Your task to perform on an android device: delete browsing data in the chrome app Image 0: 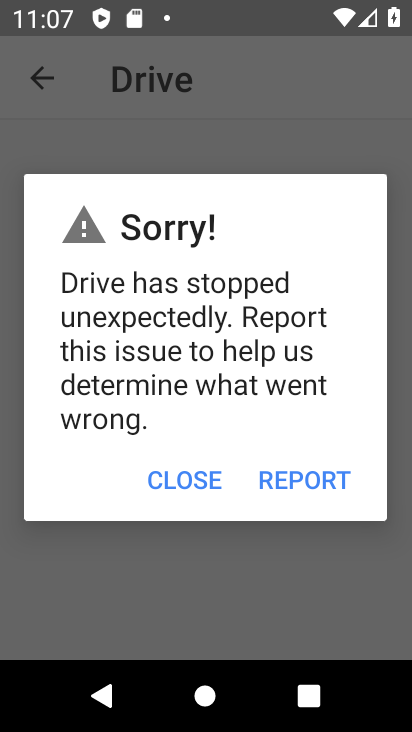
Step 0: press home button
Your task to perform on an android device: delete browsing data in the chrome app Image 1: 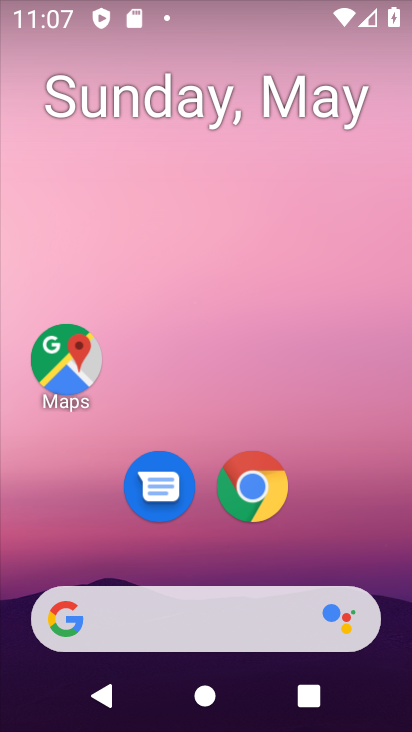
Step 1: click (268, 504)
Your task to perform on an android device: delete browsing data in the chrome app Image 2: 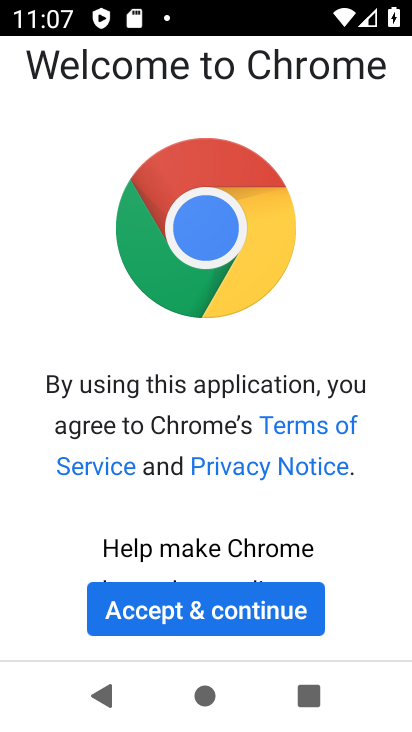
Step 2: click (237, 615)
Your task to perform on an android device: delete browsing data in the chrome app Image 3: 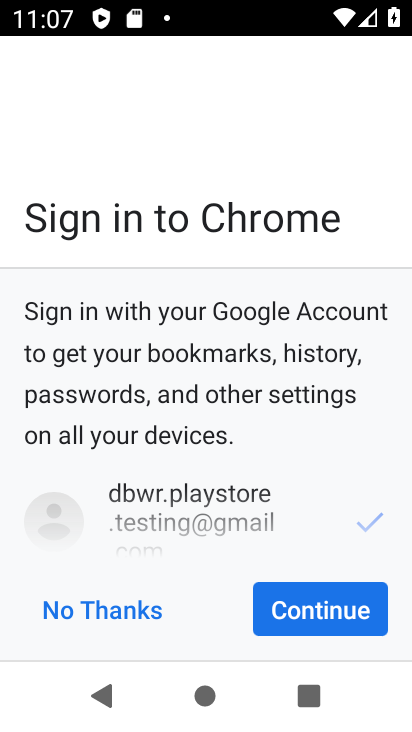
Step 3: click (314, 622)
Your task to perform on an android device: delete browsing data in the chrome app Image 4: 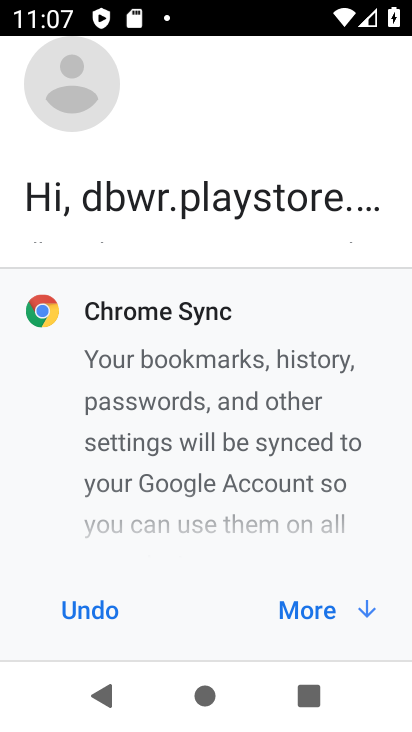
Step 4: click (317, 617)
Your task to perform on an android device: delete browsing data in the chrome app Image 5: 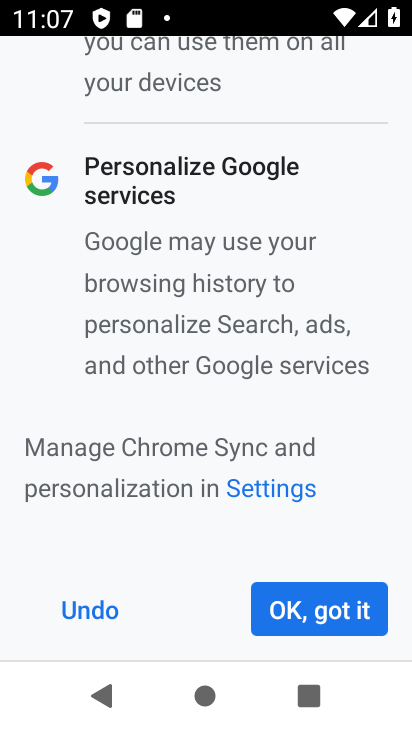
Step 5: click (317, 617)
Your task to perform on an android device: delete browsing data in the chrome app Image 6: 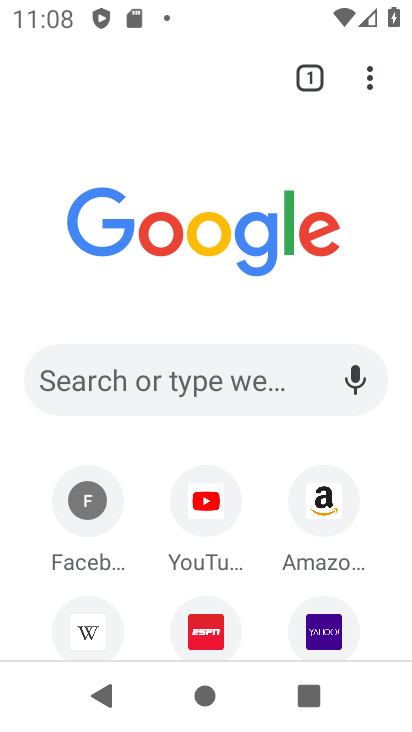
Step 6: click (367, 74)
Your task to perform on an android device: delete browsing data in the chrome app Image 7: 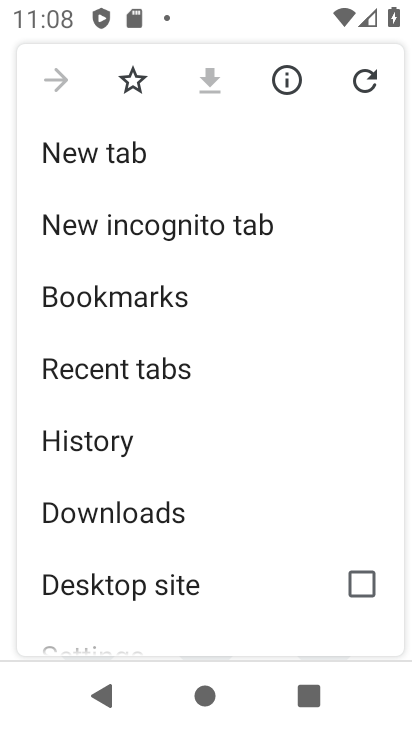
Step 7: drag from (252, 545) to (278, 168)
Your task to perform on an android device: delete browsing data in the chrome app Image 8: 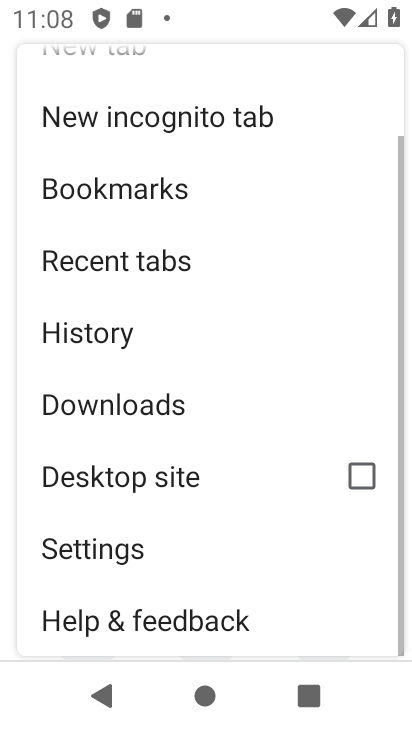
Step 8: click (226, 544)
Your task to perform on an android device: delete browsing data in the chrome app Image 9: 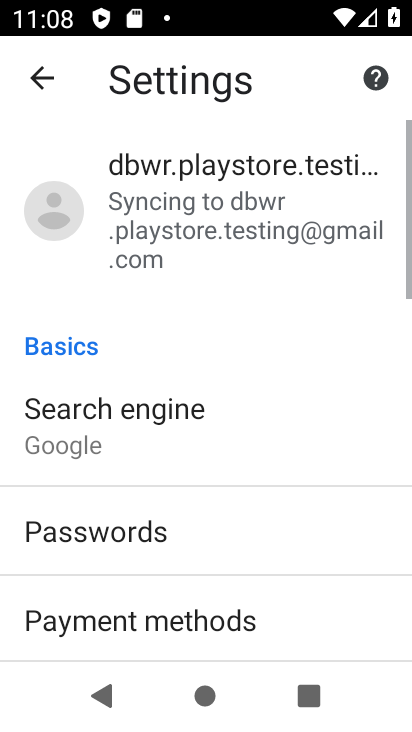
Step 9: drag from (226, 544) to (275, 205)
Your task to perform on an android device: delete browsing data in the chrome app Image 10: 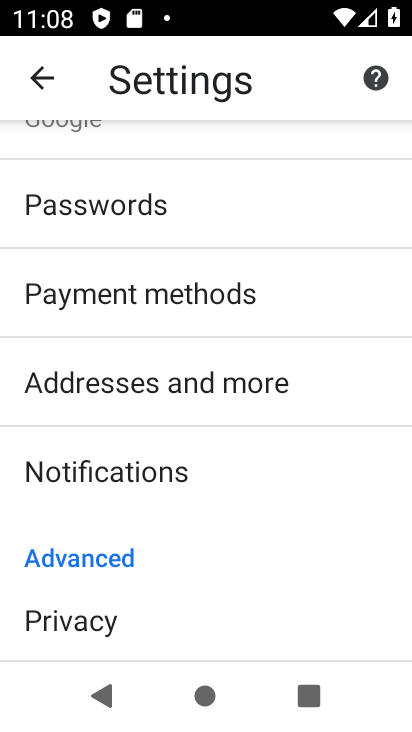
Step 10: drag from (247, 549) to (298, 212)
Your task to perform on an android device: delete browsing data in the chrome app Image 11: 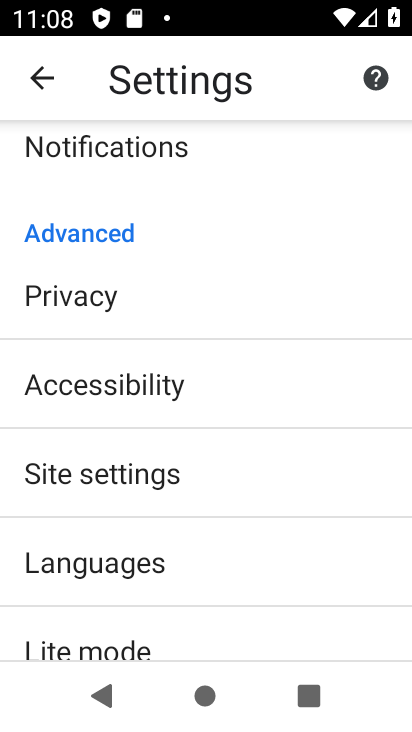
Step 11: drag from (290, 586) to (310, 254)
Your task to perform on an android device: delete browsing data in the chrome app Image 12: 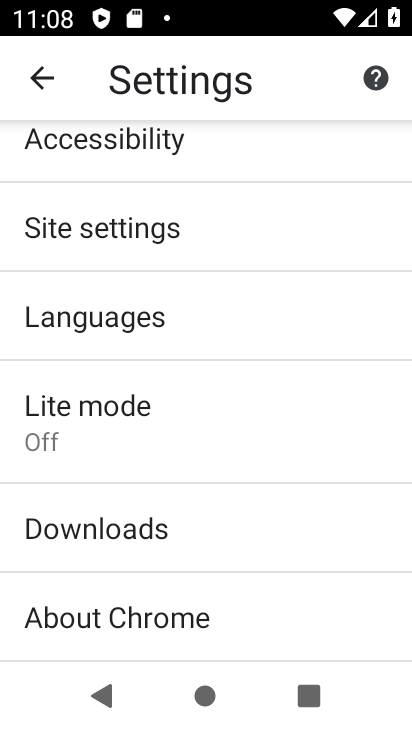
Step 12: drag from (289, 183) to (304, 534)
Your task to perform on an android device: delete browsing data in the chrome app Image 13: 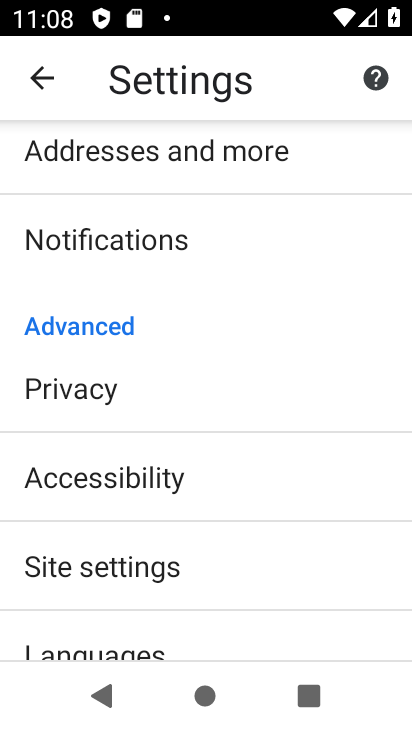
Step 13: click (155, 369)
Your task to perform on an android device: delete browsing data in the chrome app Image 14: 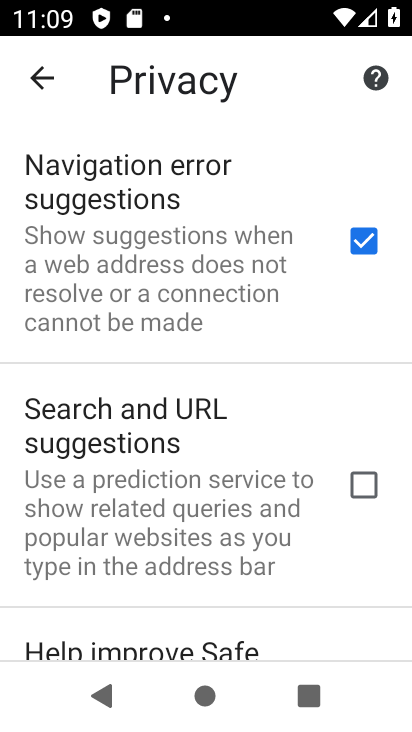
Step 14: drag from (182, 586) to (130, 217)
Your task to perform on an android device: delete browsing data in the chrome app Image 15: 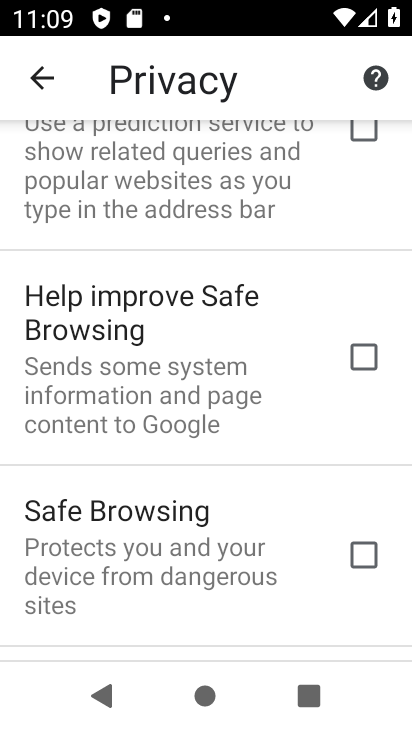
Step 15: drag from (222, 565) to (212, 187)
Your task to perform on an android device: delete browsing data in the chrome app Image 16: 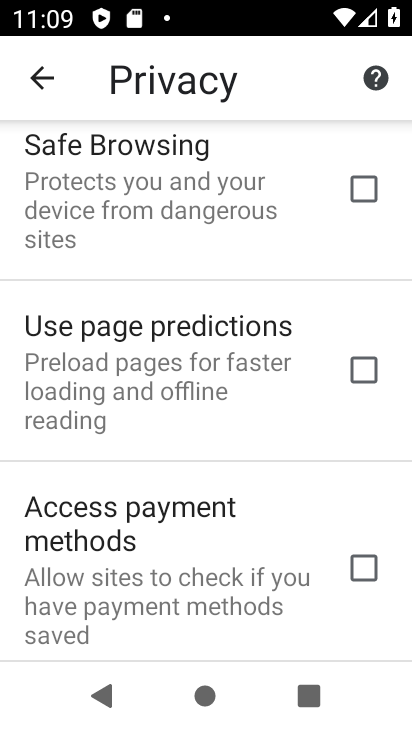
Step 16: drag from (234, 554) to (235, 154)
Your task to perform on an android device: delete browsing data in the chrome app Image 17: 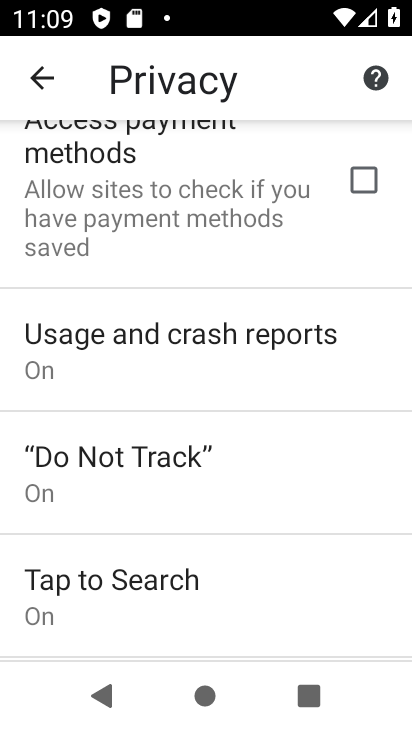
Step 17: drag from (227, 529) to (218, 190)
Your task to perform on an android device: delete browsing data in the chrome app Image 18: 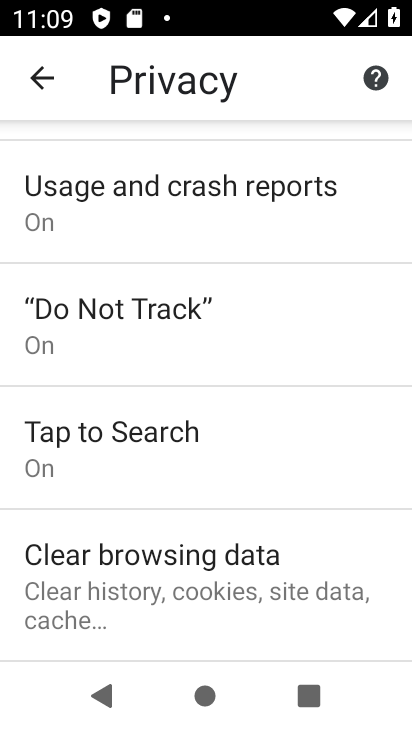
Step 18: click (253, 556)
Your task to perform on an android device: delete browsing data in the chrome app Image 19: 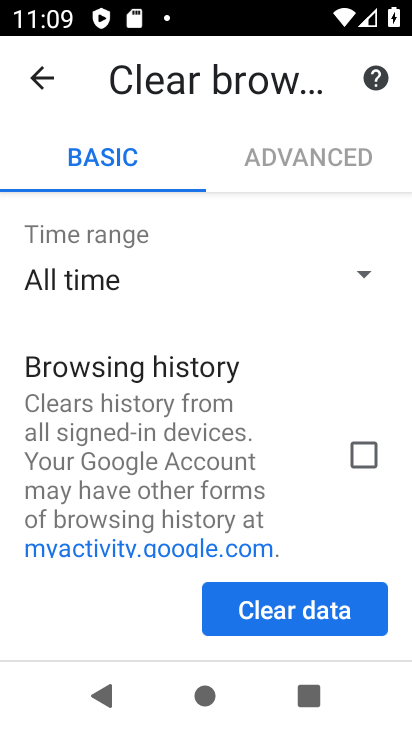
Step 19: drag from (276, 478) to (283, 251)
Your task to perform on an android device: delete browsing data in the chrome app Image 20: 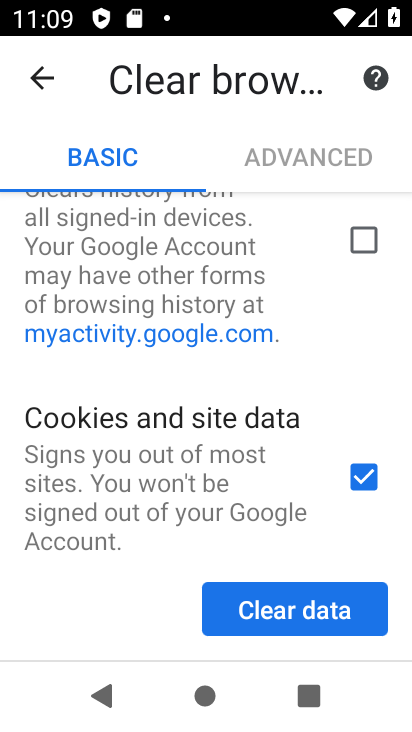
Step 20: click (399, 237)
Your task to perform on an android device: delete browsing data in the chrome app Image 21: 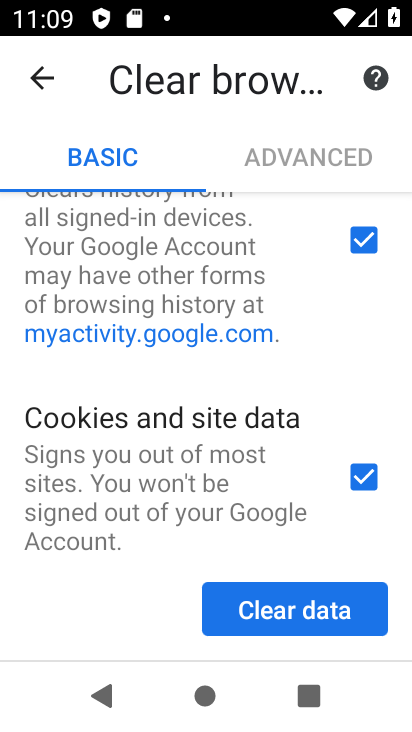
Step 21: drag from (263, 478) to (295, 185)
Your task to perform on an android device: delete browsing data in the chrome app Image 22: 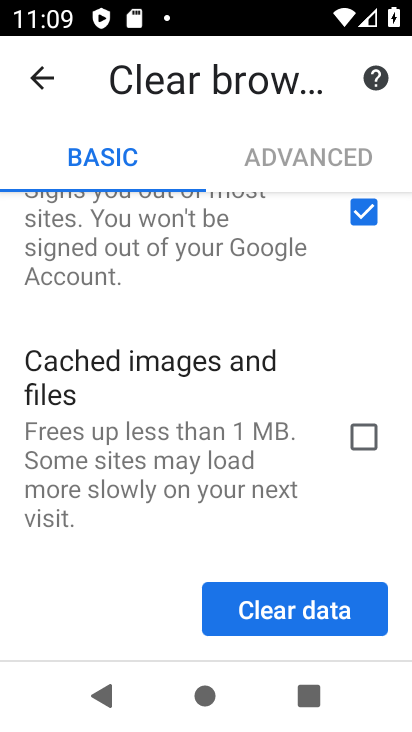
Step 22: drag from (265, 470) to (296, 185)
Your task to perform on an android device: delete browsing data in the chrome app Image 23: 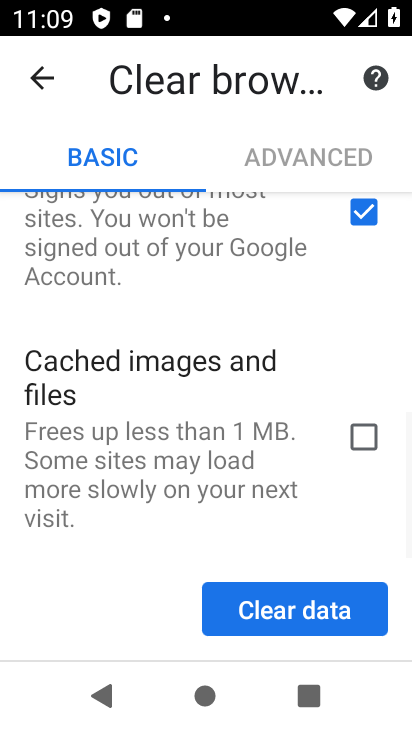
Step 23: click (261, 595)
Your task to perform on an android device: delete browsing data in the chrome app Image 24: 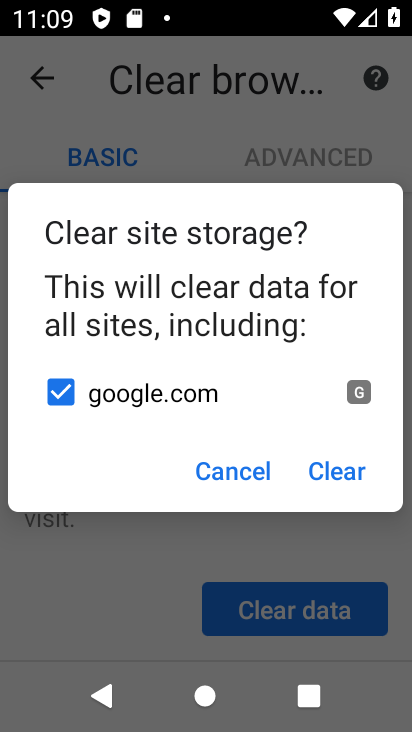
Step 24: click (325, 463)
Your task to perform on an android device: delete browsing data in the chrome app Image 25: 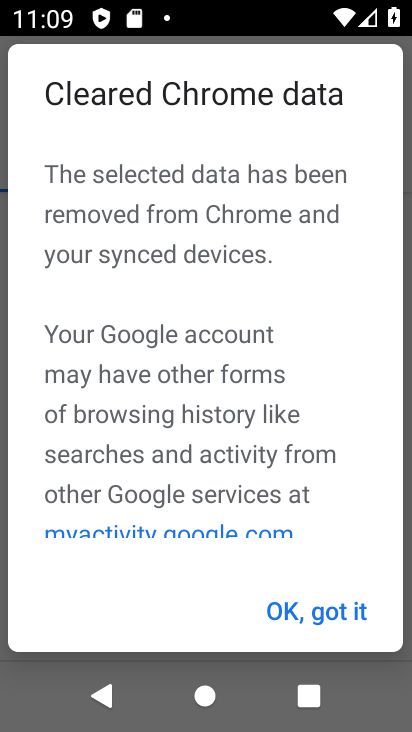
Step 25: click (333, 609)
Your task to perform on an android device: delete browsing data in the chrome app Image 26: 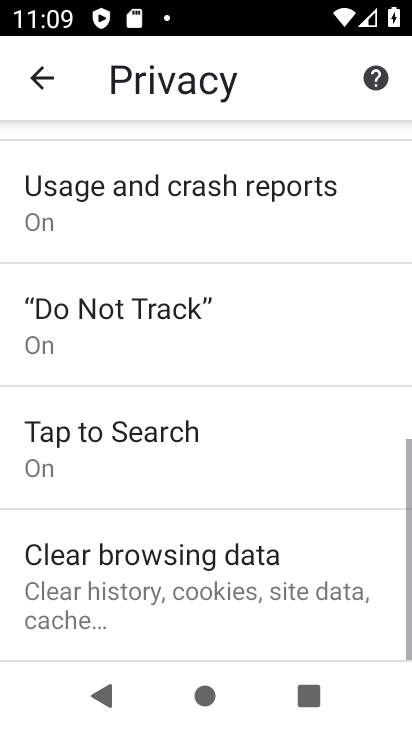
Step 26: task complete